Your task to perform on an android device: Open display settings Image 0: 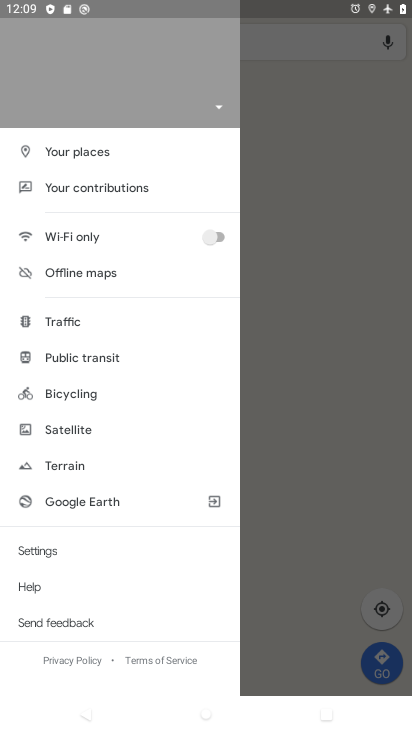
Step 0: drag from (187, 638) to (209, 133)
Your task to perform on an android device: Open display settings Image 1: 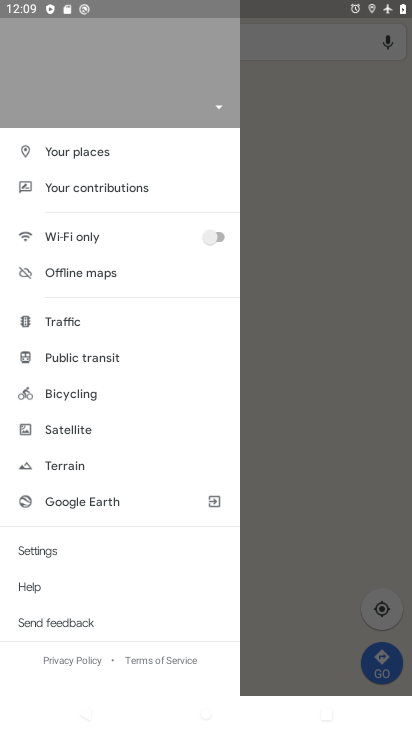
Step 1: press home button
Your task to perform on an android device: Open display settings Image 2: 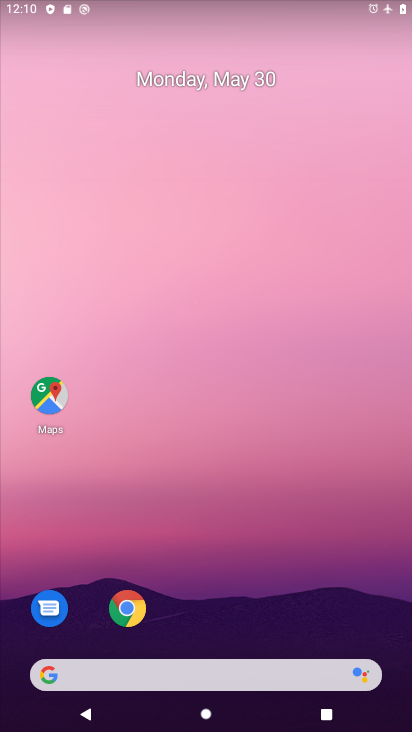
Step 2: drag from (181, 631) to (216, 59)
Your task to perform on an android device: Open display settings Image 3: 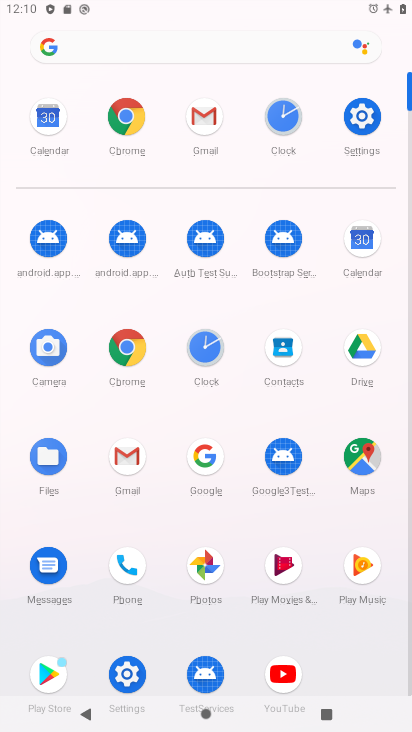
Step 3: click (346, 118)
Your task to perform on an android device: Open display settings Image 4: 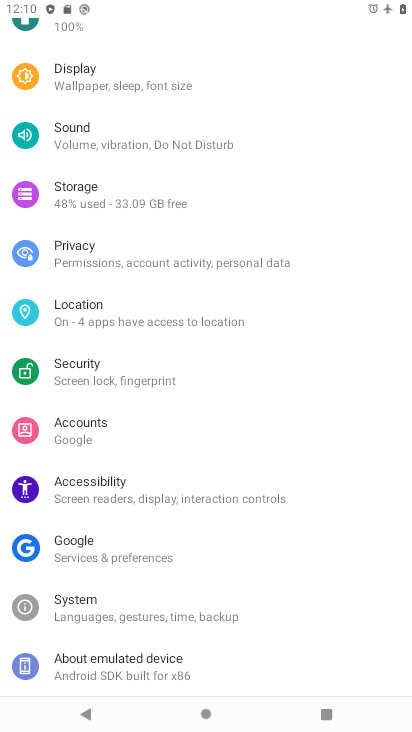
Step 4: click (115, 91)
Your task to perform on an android device: Open display settings Image 5: 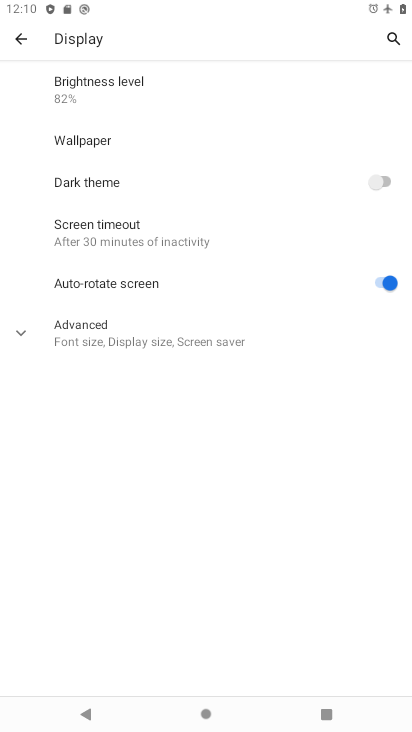
Step 5: click (145, 322)
Your task to perform on an android device: Open display settings Image 6: 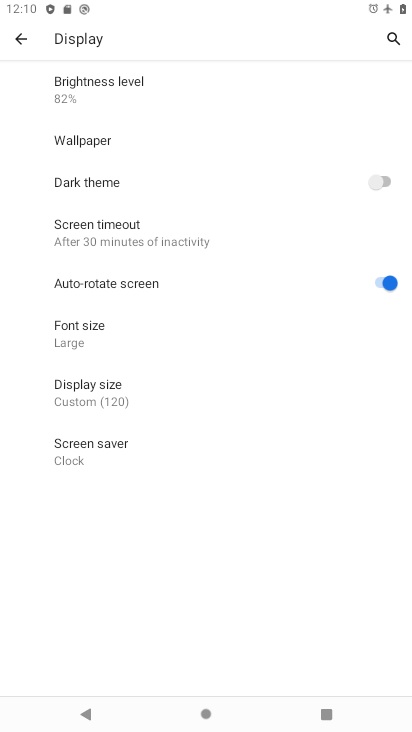
Step 6: task complete